Your task to perform on an android device: Turn off the flashlight Image 0: 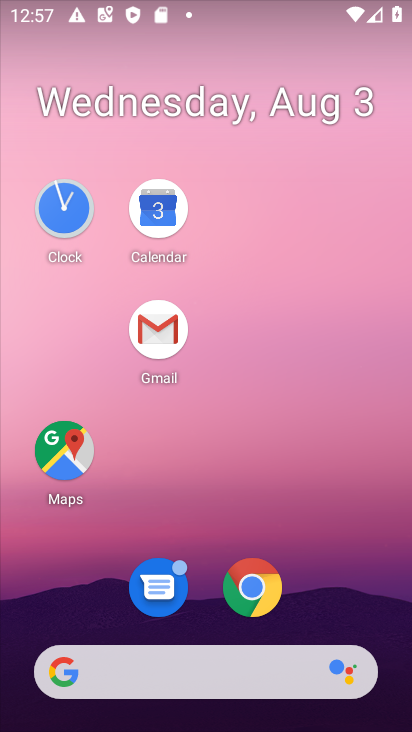
Step 0: drag from (236, 3) to (231, 340)
Your task to perform on an android device: Turn off the flashlight Image 1: 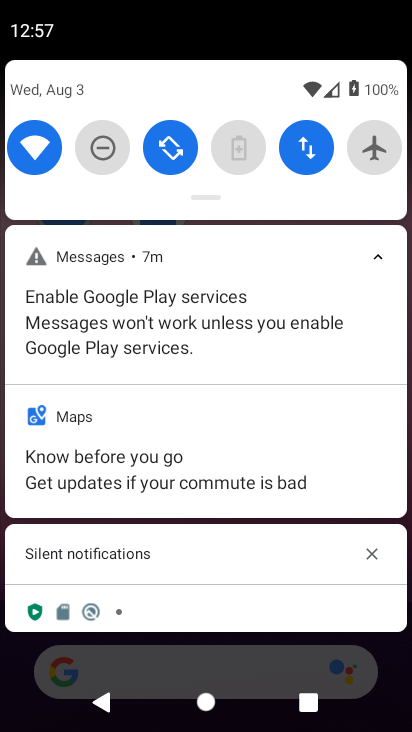
Step 1: task complete